Your task to perform on an android device: Do I have any events today? Image 0: 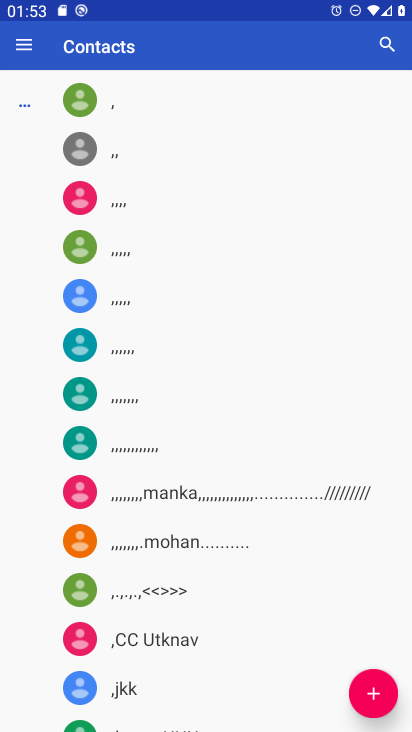
Step 0: press home button
Your task to perform on an android device: Do I have any events today? Image 1: 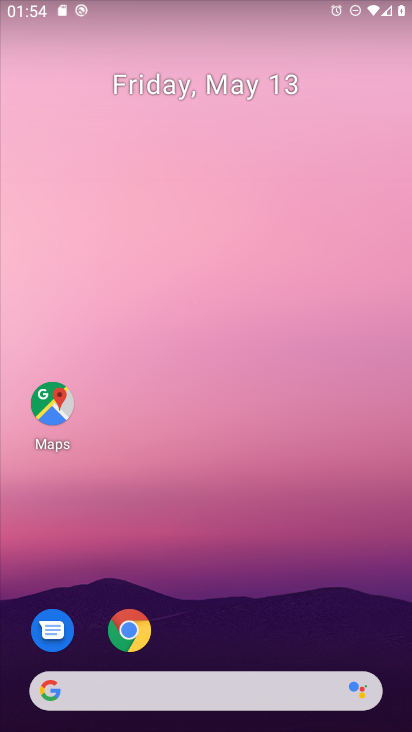
Step 1: drag from (218, 710) to (217, 255)
Your task to perform on an android device: Do I have any events today? Image 2: 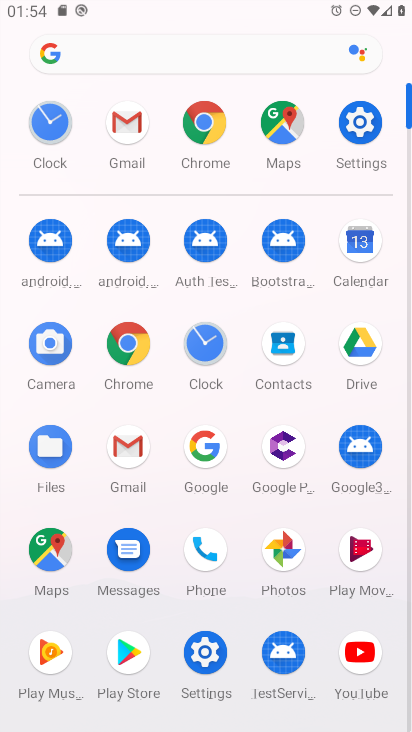
Step 2: click (351, 253)
Your task to perform on an android device: Do I have any events today? Image 3: 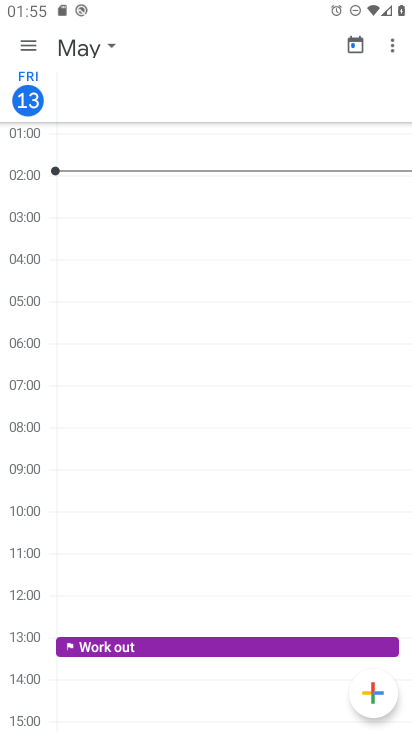
Step 3: click (21, 49)
Your task to perform on an android device: Do I have any events today? Image 4: 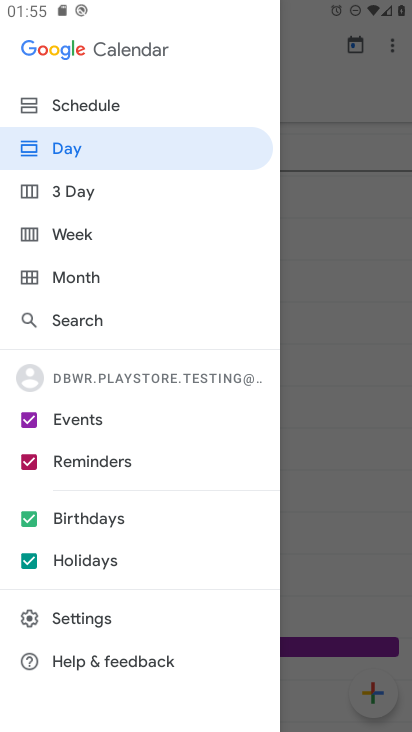
Step 4: click (90, 108)
Your task to perform on an android device: Do I have any events today? Image 5: 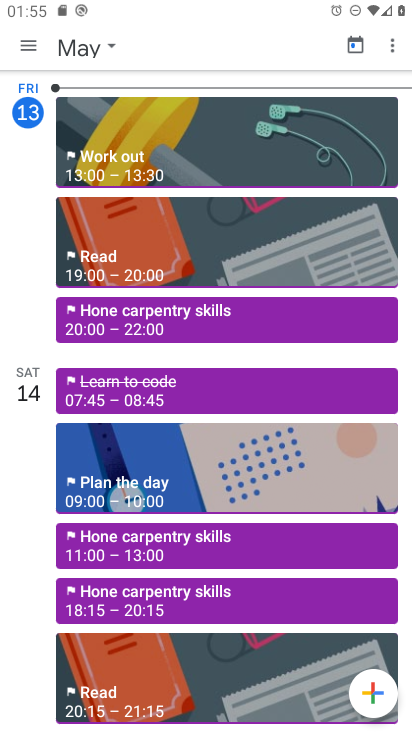
Step 5: task complete